Your task to perform on an android device: open chrome and create a bookmark for the current page Image 0: 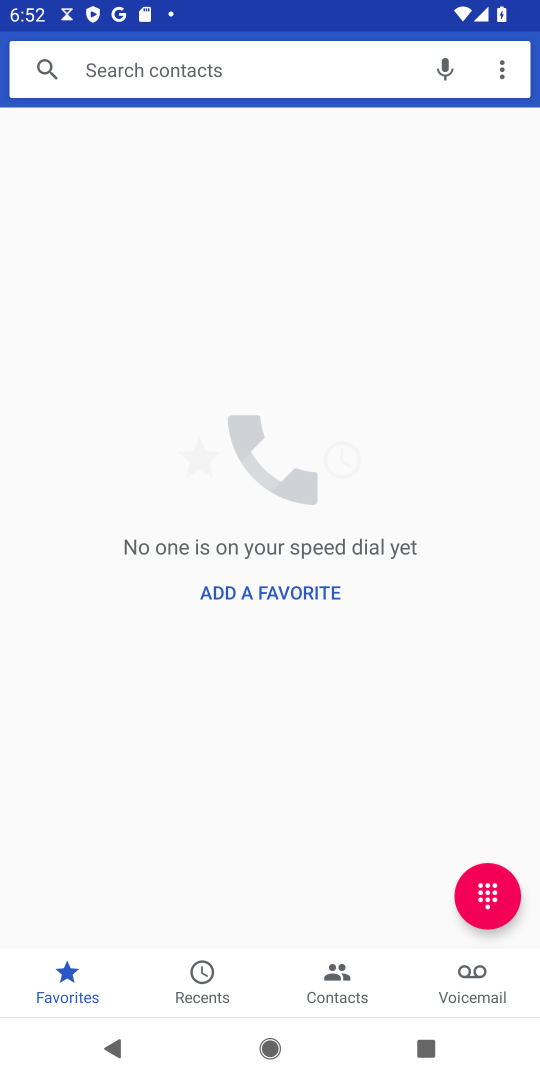
Step 0: press home button
Your task to perform on an android device: open chrome and create a bookmark for the current page Image 1: 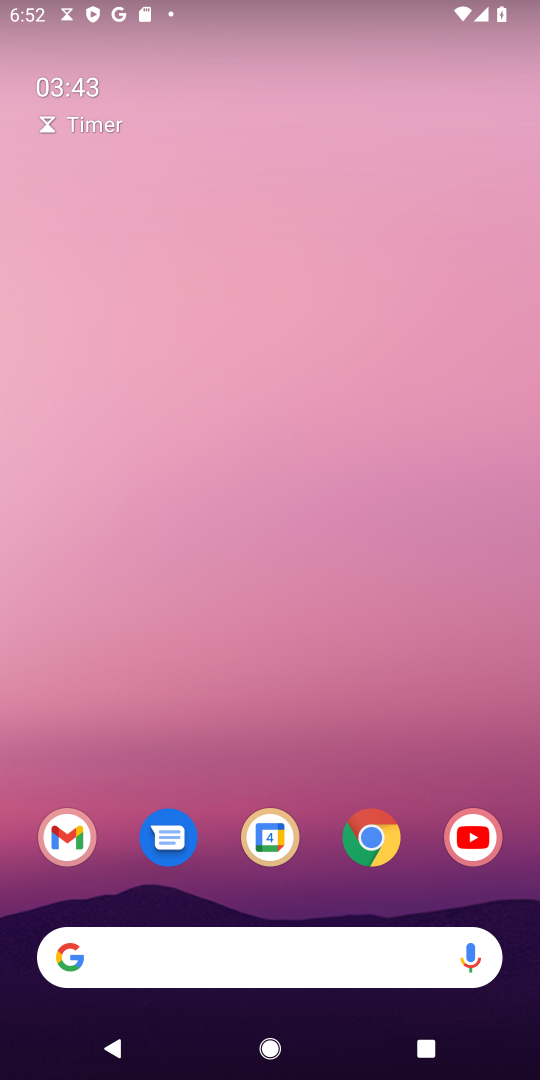
Step 1: drag from (314, 795) to (344, 1)
Your task to perform on an android device: open chrome and create a bookmark for the current page Image 2: 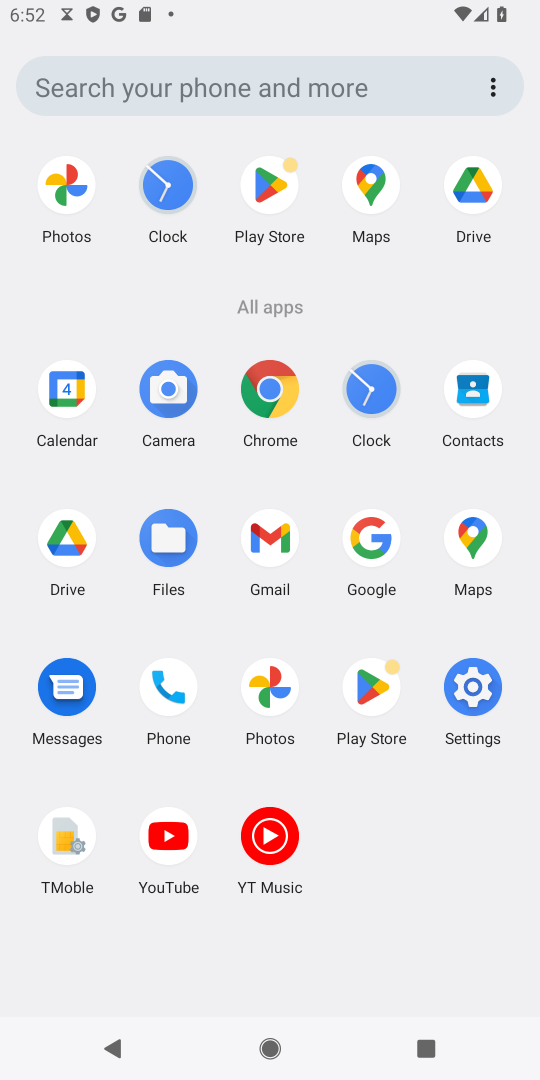
Step 2: click (267, 385)
Your task to perform on an android device: open chrome and create a bookmark for the current page Image 3: 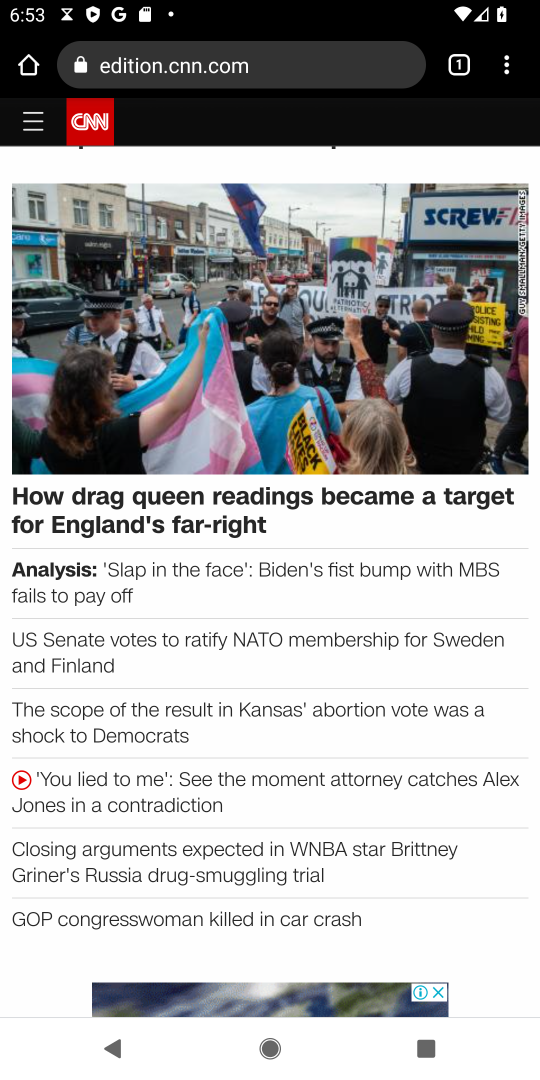
Step 3: click (505, 64)
Your task to perform on an android device: open chrome and create a bookmark for the current page Image 4: 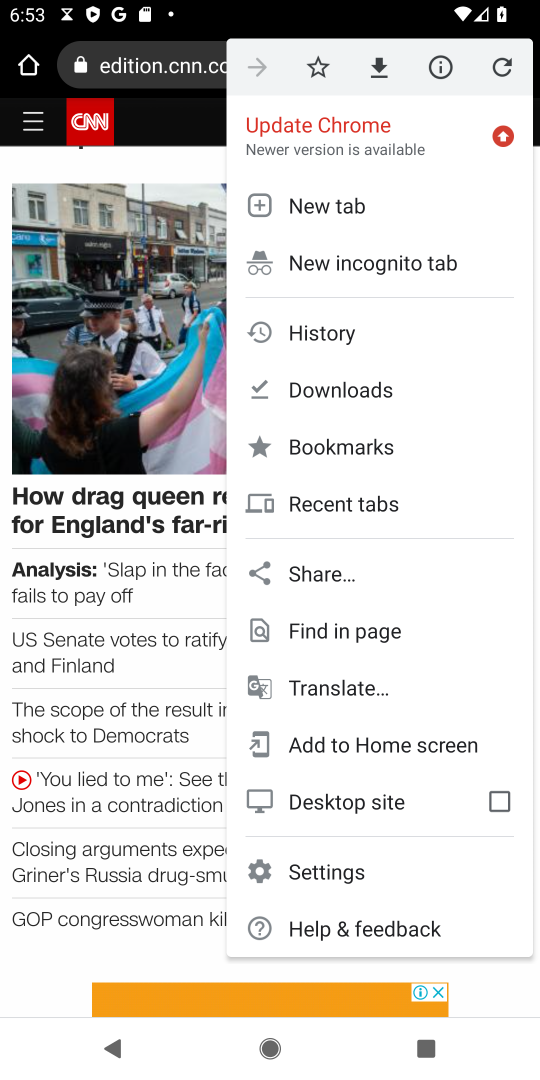
Step 4: click (319, 63)
Your task to perform on an android device: open chrome and create a bookmark for the current page Image 5: 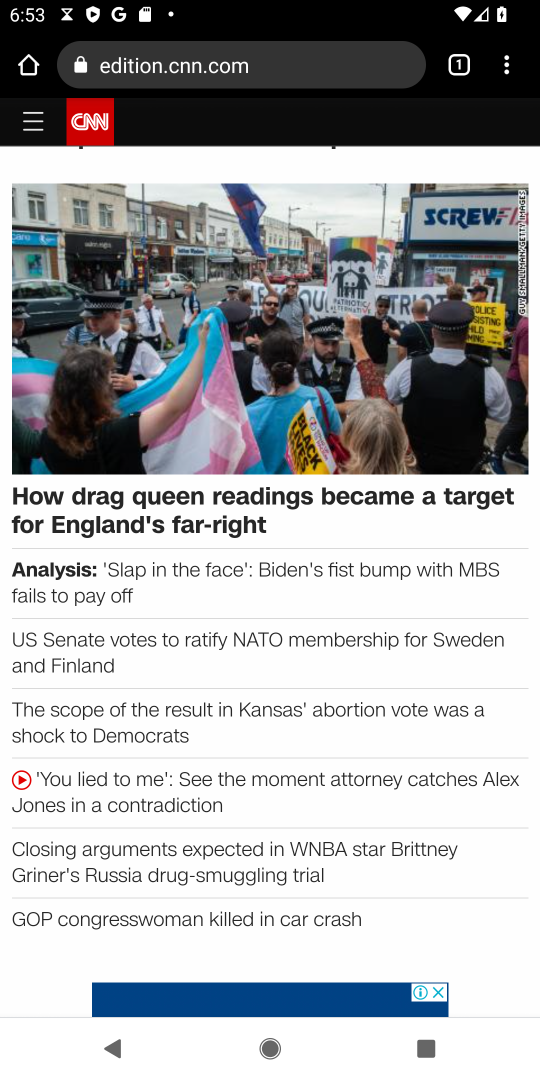
Step 5: task complete